Your task to perform on an android device: Is it going to rain this weekend? Image 0: 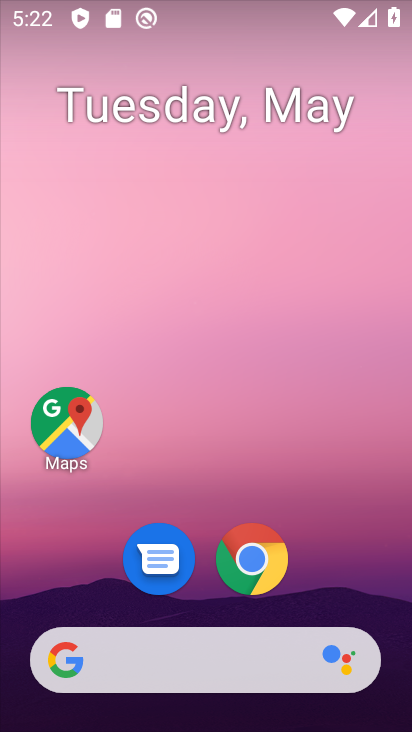
Step 0: drag from (192, 603) to (245, 180)
Your task to perform on an android device: Is it going to rain this weekend? Image 1: 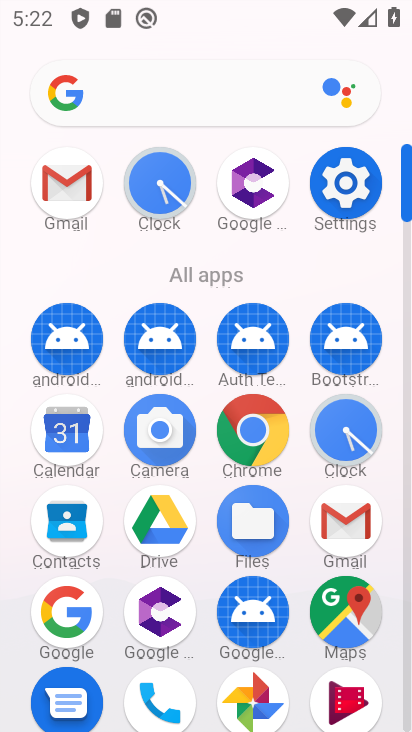
Step 1: click (64, 622)
Your task to perform on an android device: Is it going to rain this weekend? Image 2: 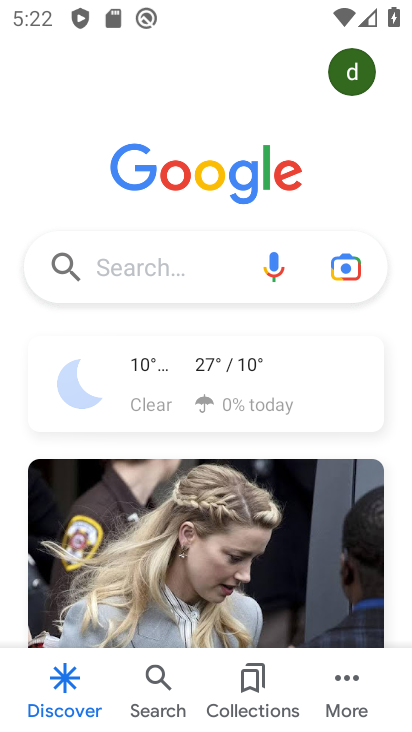
Step 2: click (146, 264)
Your task to perform on an android device: Is it going to rain this weekend? Image 3: 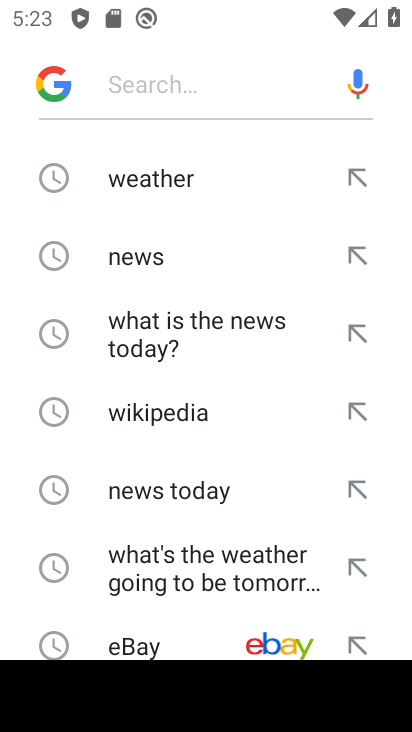
Step 3: click (143, 181)
Your task to perform on an android device: Is it going to rain this weekend? Image 4: 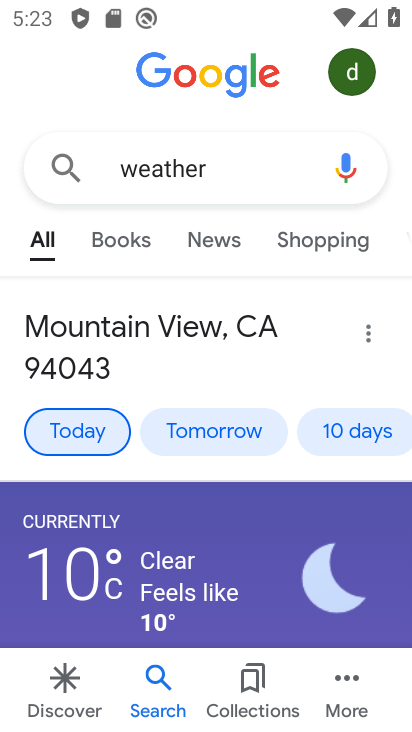
Step 4: click (331, 435)
Your task to perform on an android device: Is it going to rain this weekend? Image 5: 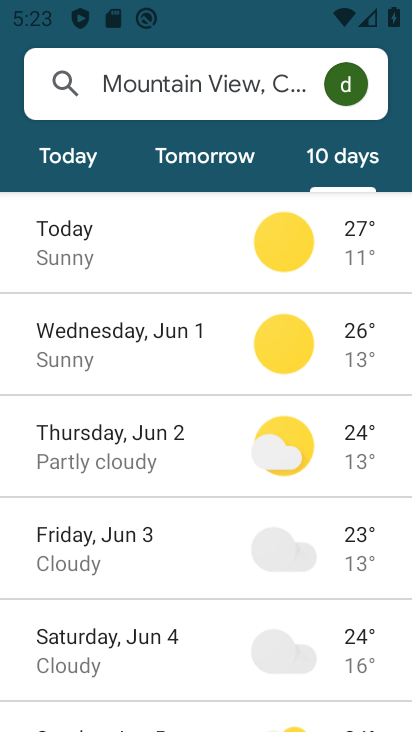
Step 5: task complete